Your task to perform on an android device: Open Amazon Image 0: 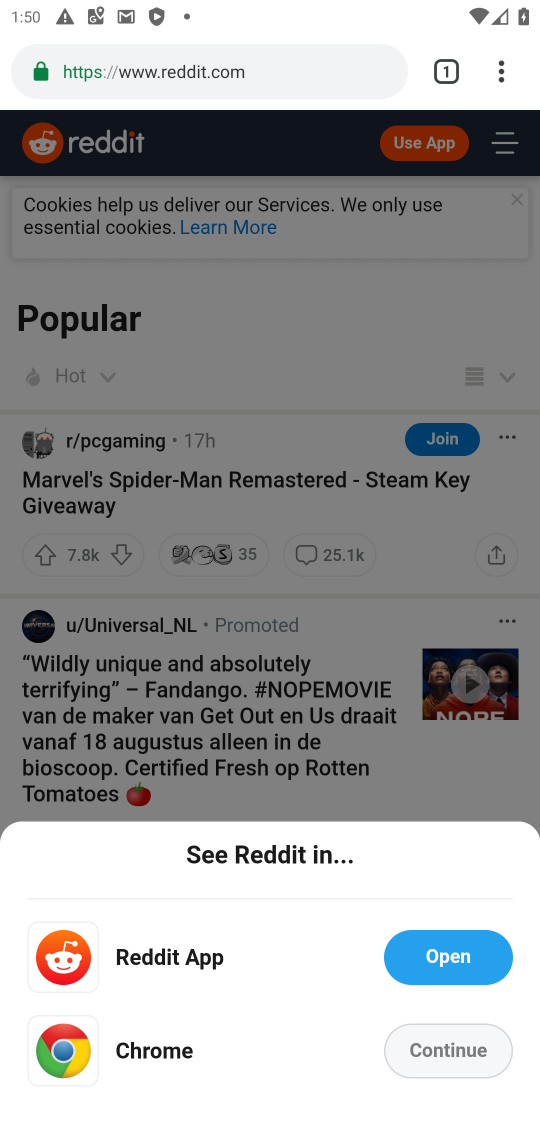
Step 0: click (156, 56)
Your task to perform on an android device: Open Amazon Image 1: 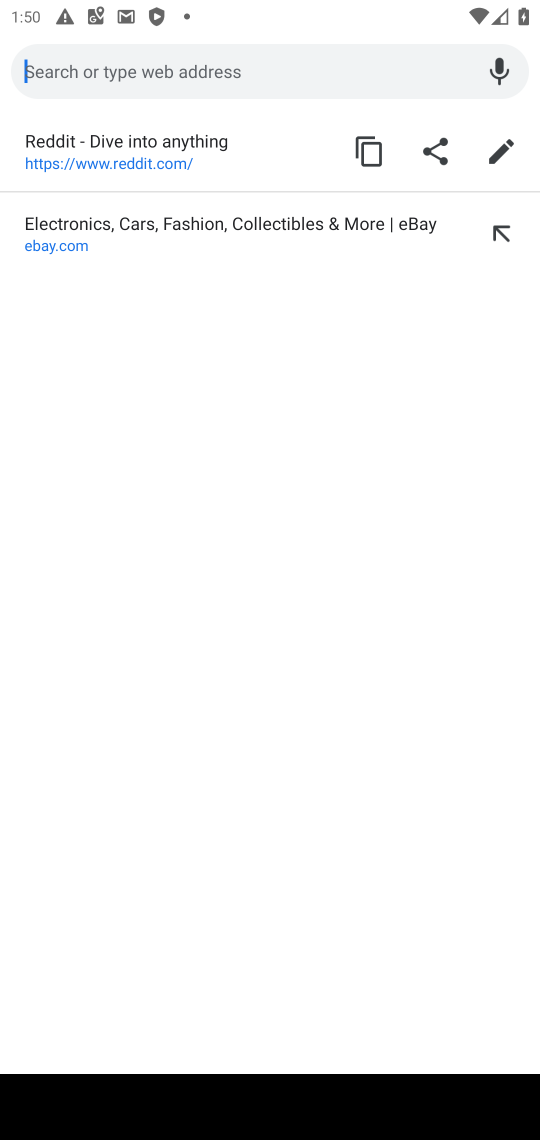
Step 1: type "amazon"
Your task to perform on an android device: Open Amazon Image 2: 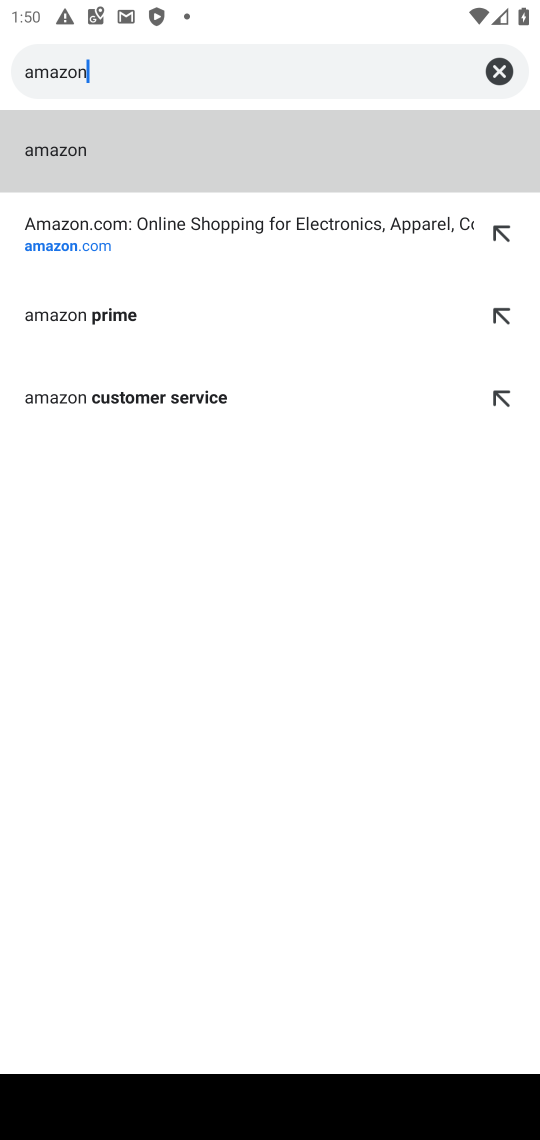
Step 2: click (59, 249)
Your task to perform on an android device: Open Amazon Image 3: 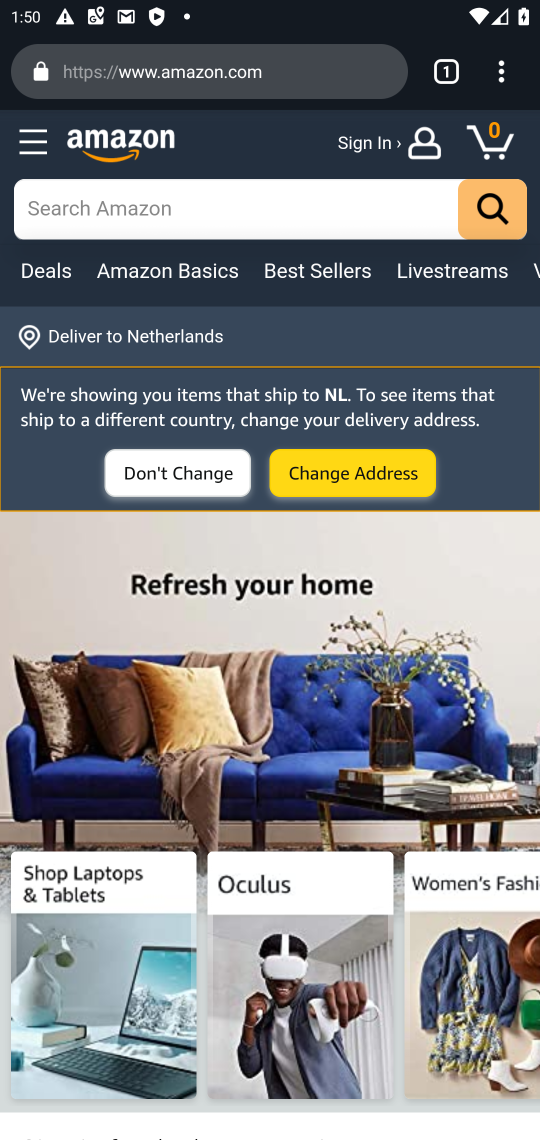
Step 3: task complete